Your task to perform on an android device: Search for seafood restaurants on Google Maps Image 0: 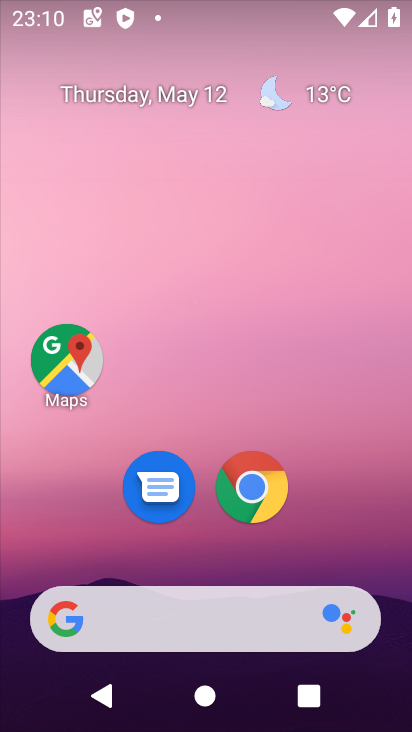
Step 0: click (62, 362)
Your task to perform on an android device: Search for seafood restaurants on Google Maps Image 1: 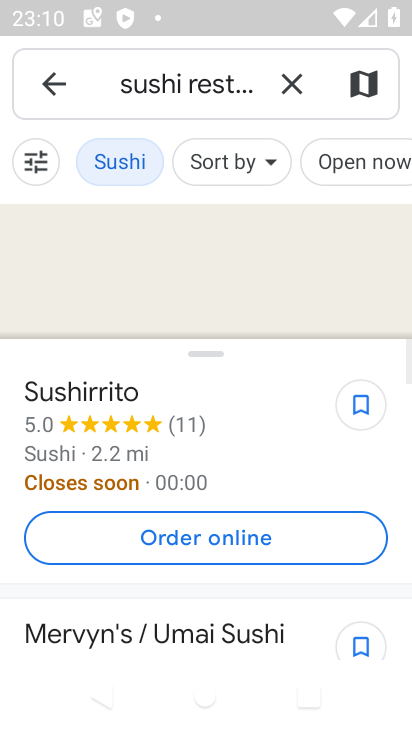
Step 1: click (301, 79)
Your task to perform on an android device: Search for seafood restaurants on Google Maps Image 2: 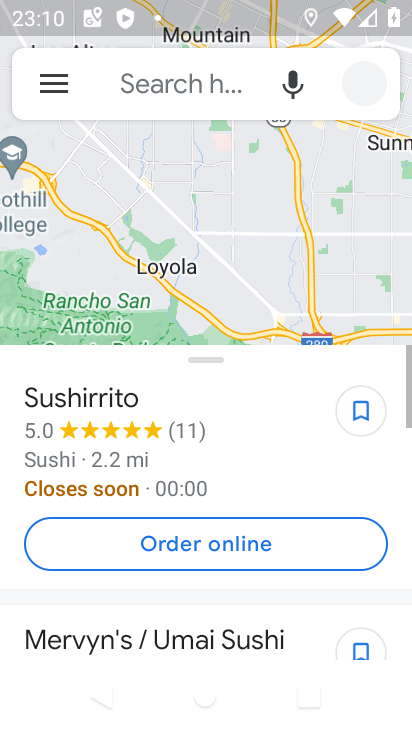
Step 2: click (210, 90)
Your task to perform on an android device: Search for seafood restaurants on Google Maps Image 3: 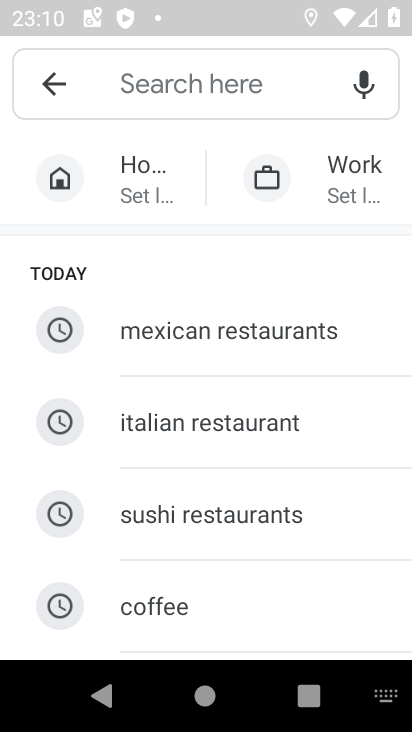
Step 3: type "seafood rstaurant"
Your task to perform on an android device: Search for seafood restaurants on Google Maps Image 4: 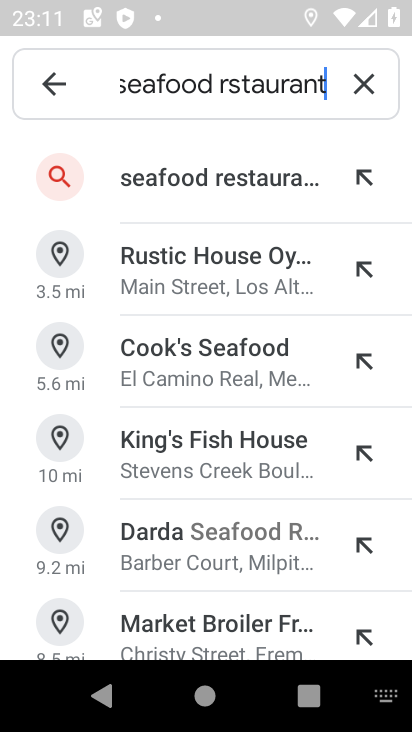
Step 4: click (192, 181)
Your task to perform on an android device: Search for seafood restaurants on Google Maps Image 5: 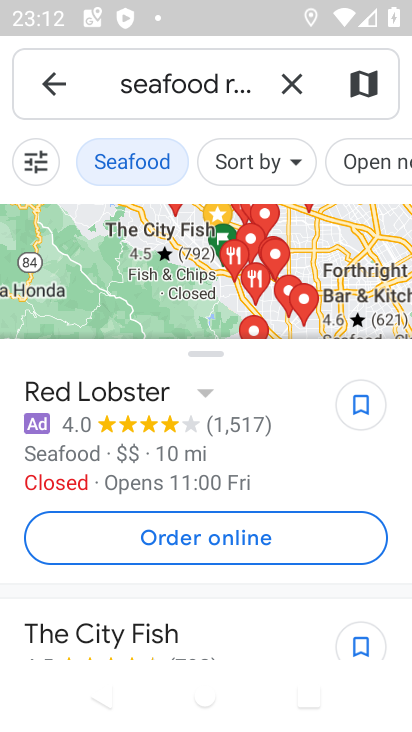
Step 5: task complete